Your task to perform on an android device: turn on javascript in the chrome app Image 0: 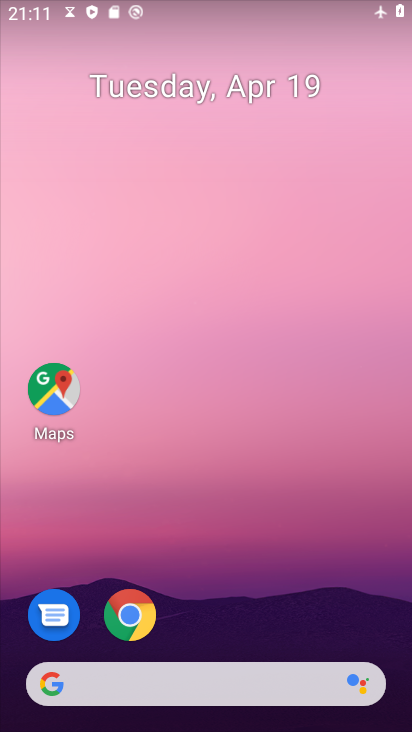
Step 0: drag from (385, 481) to (334, 28)
Your task to perform on an android device: turn on javascript in the chrome app Image 1: 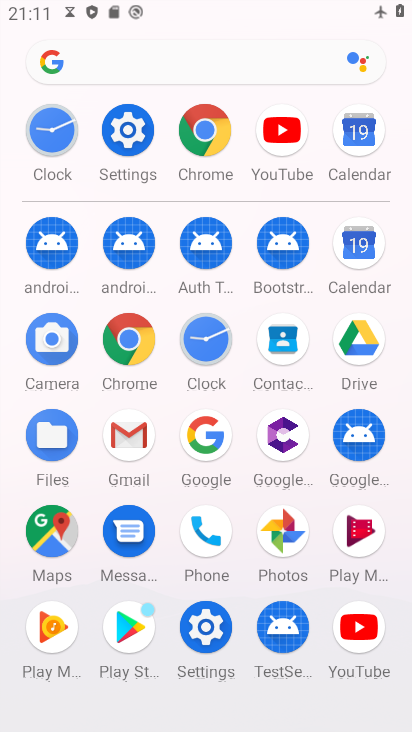
Step 1: drag from (7, 505) to (17, 335)
Your task to perform on an android device: turn on javascript in the chrome app Image 2: 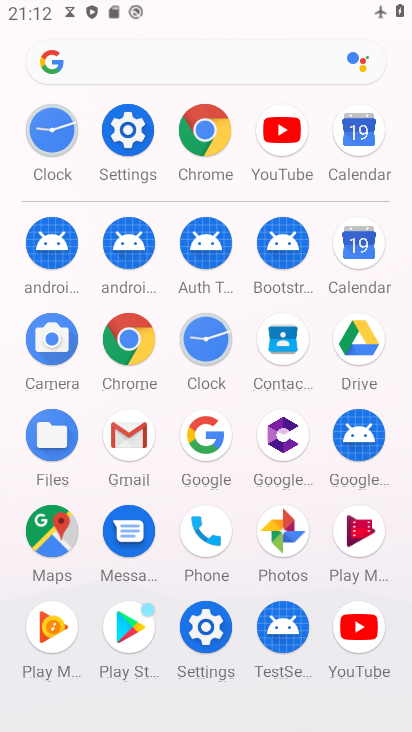
Step 2: click (129, 343)
Your task to perform on an android device: turn on javascript in the chrome app Image 3: 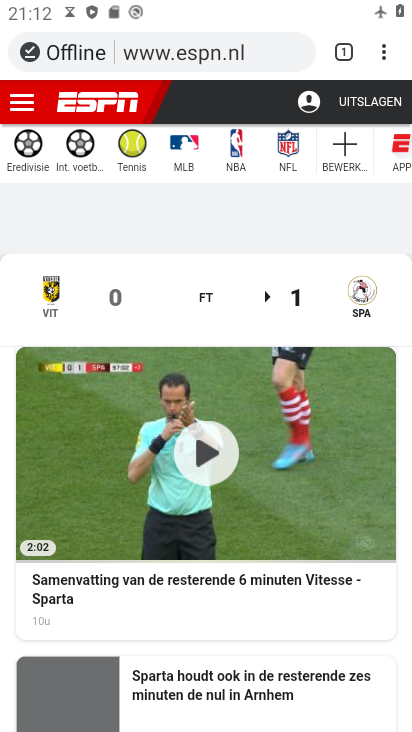
Step 3: drag from (382, 62) to (206, 644)
Your task to perform on an android device: turn on javascript in the chrome app Image 4: 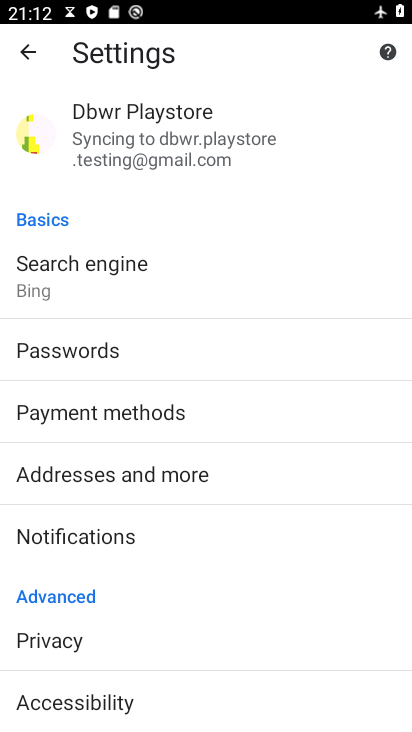
Step 4: drag from (271, 553) to (241, 182)
Your task to perform on an android device: turn on javascript in the chrome app Image 5: 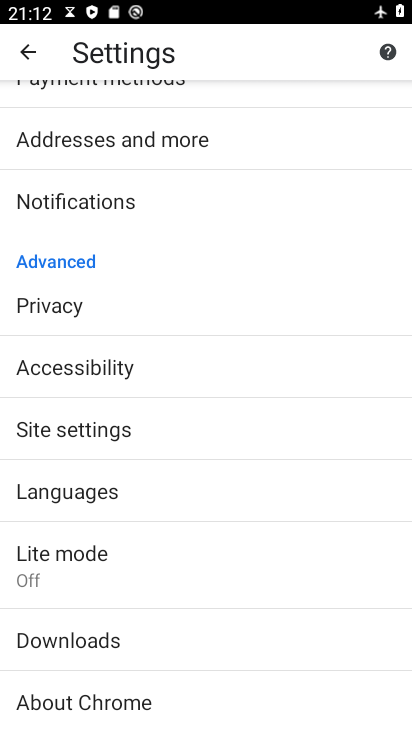
Step 5: drag from (233, 531) to (233, 210)
Your task to perform on an android device: turn on javascript in the chrome app Image 6: 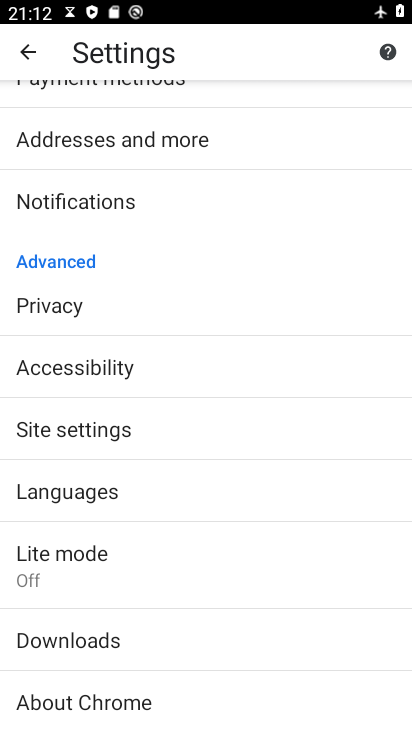
Step 6: click (111, 423)
Your task to perform on an android device: turn on javascript in the chrome app Image 7: 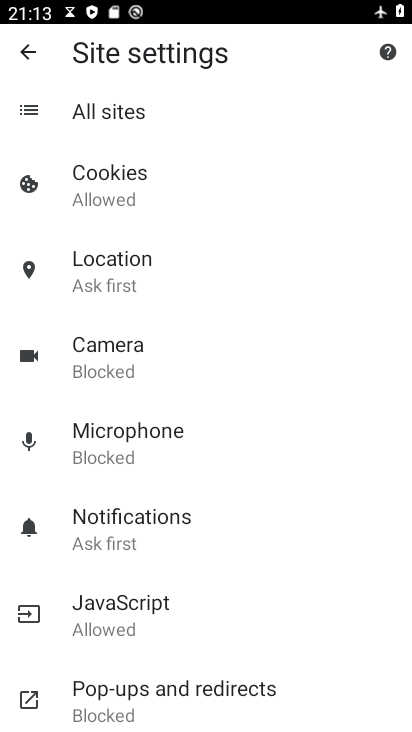
Step 7: click (190, 618)
Your task to perform on an android device: turn on javascript in the chrome app Image 8: 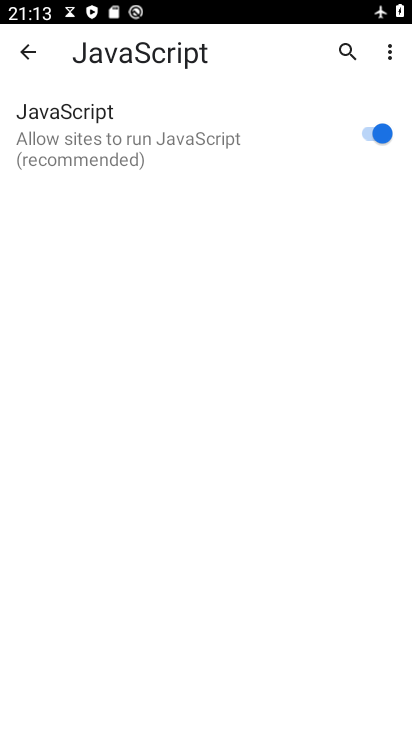
Step 8: task complete